Your task to perform on an android device: Open the Play Movies app and select the watchlist tab. Image 0: 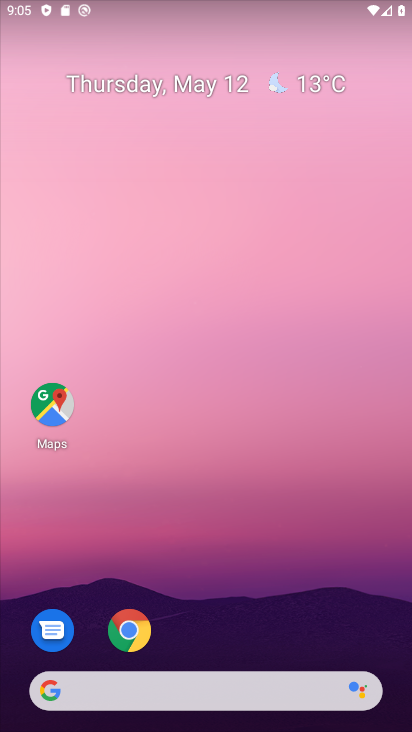
Step 0: drag from (298, 681) to (283, 188)
Your task to perform on an android device: Open the Play Movies app and select the watchlist tab. Image 1: 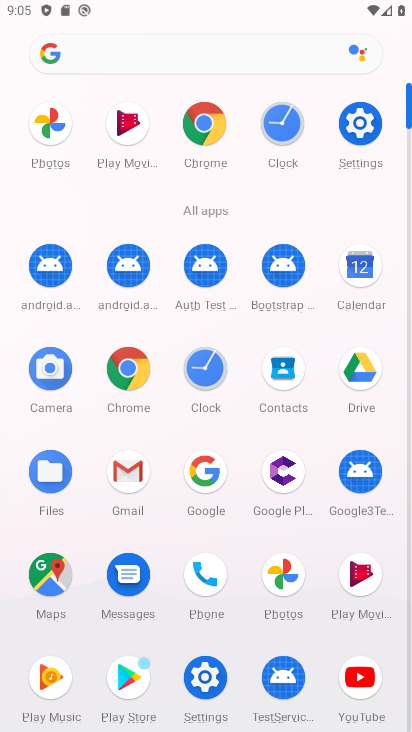
Step 1: click (370, 568)
Your task to perform on an android device: Open the Play Movies app and select the watchlist tab. Image 2: 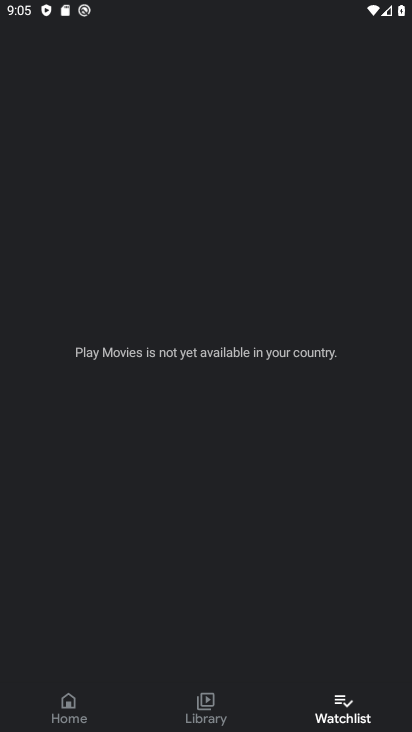
Step 2: click (332, 713)
Your task to perform on an android device: Open the Play Movies app and select the watchlist tab. Image 3: 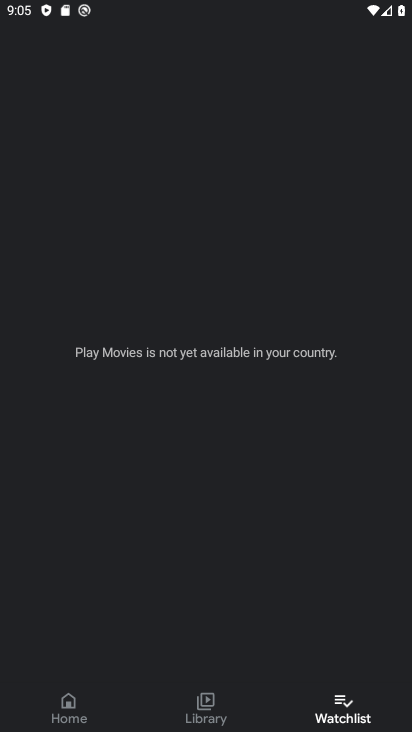
Step 3: task complete